Your task to perform on an android device: empty trash in the gmail app Image 0: 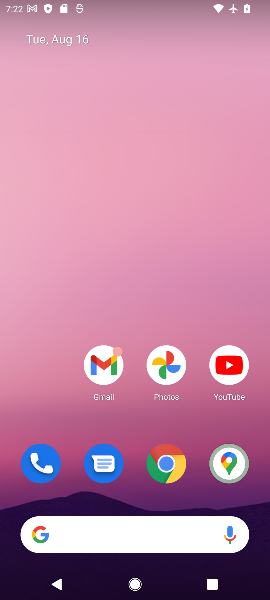
Step 0: drag from (149, 498) to (165, 96)
Your task to perform on an android device: empty trash in the gmail app Image 1: 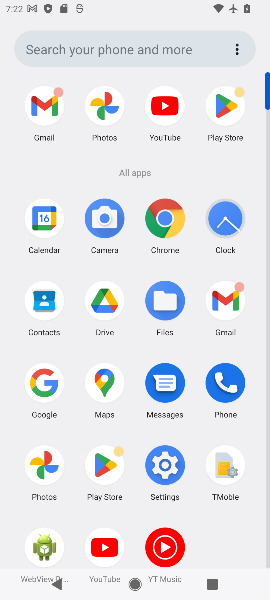
Step 1: click (229, 297)
Your task to perform on an android device: empty trash in the gmail app Image 2: 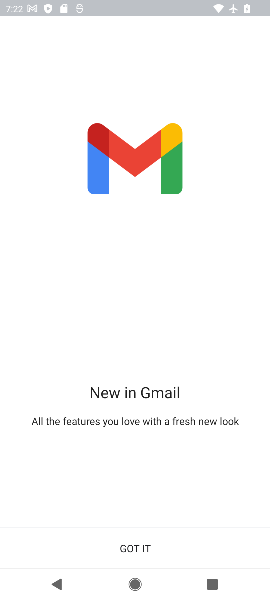
Step 2: click (147, 539)
Your task to perform on an android device: empty trash in the gmail app Image 3: 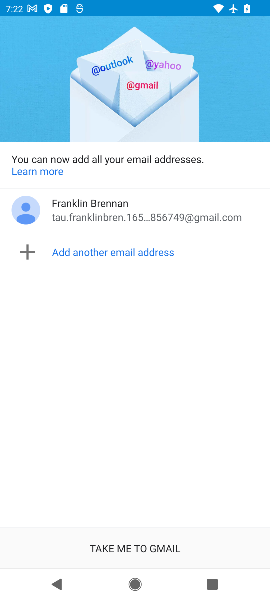
Step 3: click (153, 545)
Your task to perform on an android device: empty trash in the gmail app Image 4: 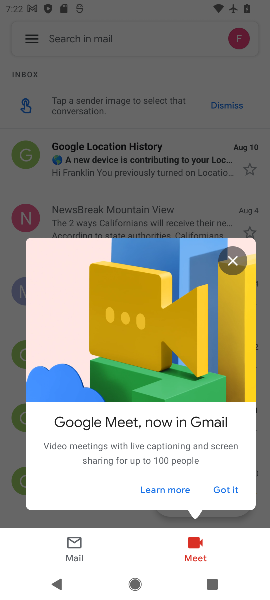
Step 4: click (28, 33)
Your task to perform on an android device: empty trash in the gmail app Image 5: 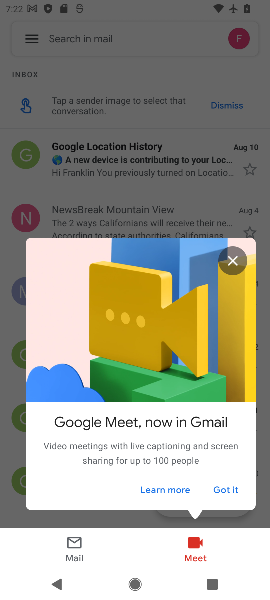
Step 5: click (233, 251)
Your task to perform on an android device: empty trash in the gmail app Image 6: 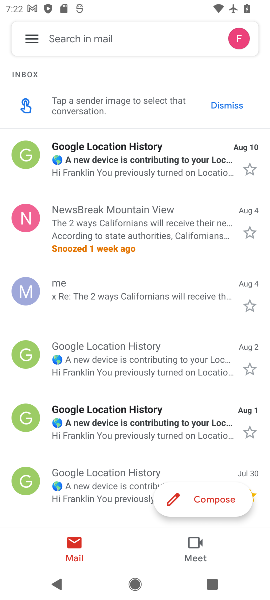
Step 6: click (23, 30)
Your task to perform on an android device: empty trash in the gmail app Image 7: 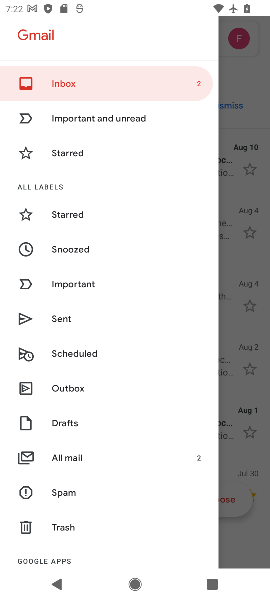
Step 7: click (70, 512)
Your task to perform on an android device: empty trash in the gmail app Image 8: 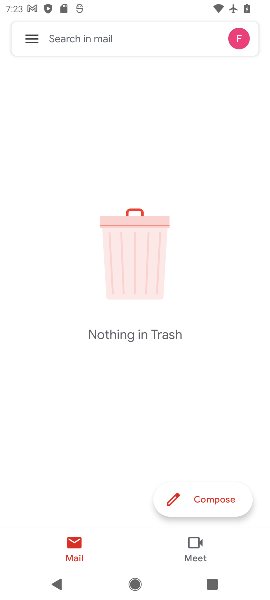
Step 8: click (46, 524)
Your task to perform on an android device: empty trash in the gmail app Image 9: 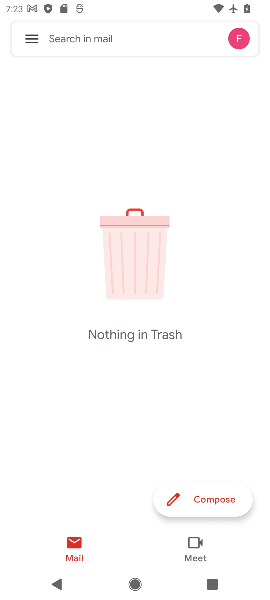
Step 9: task complete